Your task to perform on an android device: Open the calendar and show me this week's events Image 0: 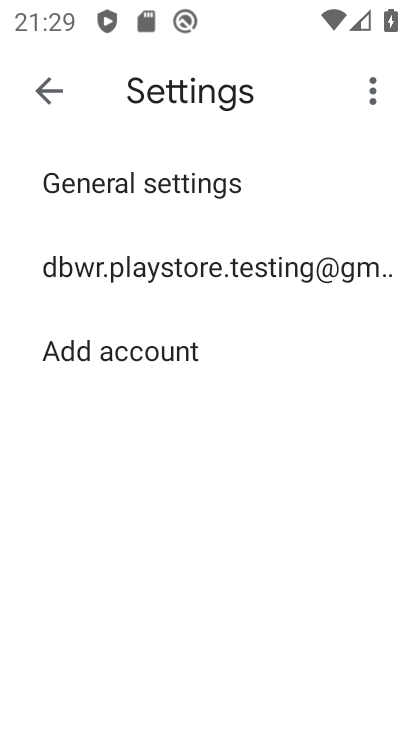
Step 0: press home button
Your task to perform on an android device: Open the calendar and show me this week's events Image 1: 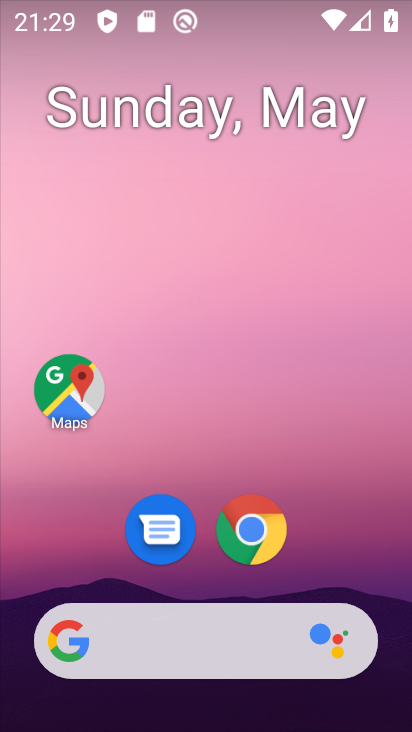
Step 1: drag from (335, 572) to (371, 12)
Your task to perform on an android device: Open the calendar and show me this week's events Image 2: 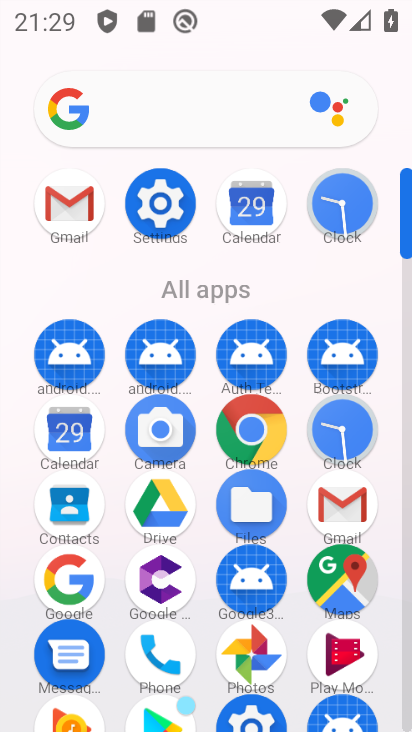
Step 2: click (73, 440)
Your task to perform on an android device: Open the calendar and show me this week's events Image 3: 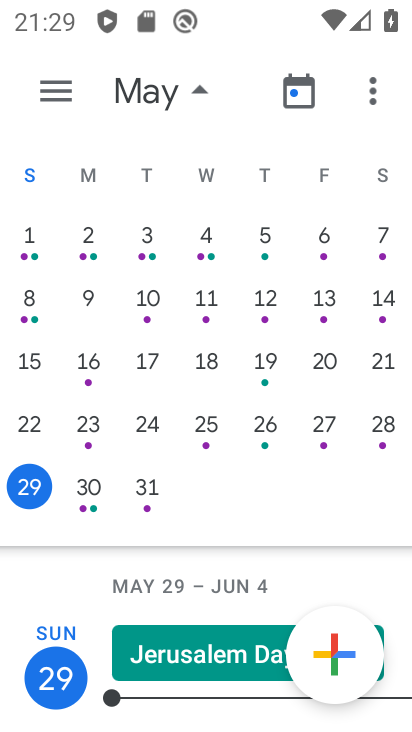
Step 3: click (12, 486)
Your task to perform on an android device: Open the calendar and show me this week's events Image 4: 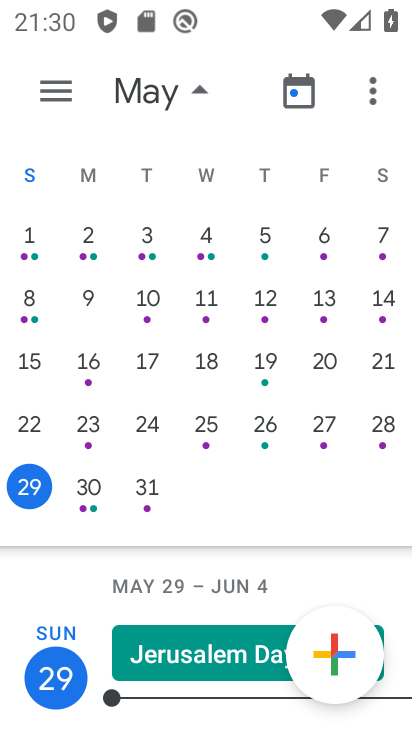
Step 4: task complete